Your task to perform on an android device: visit the assistant section in the google photos Image 0: 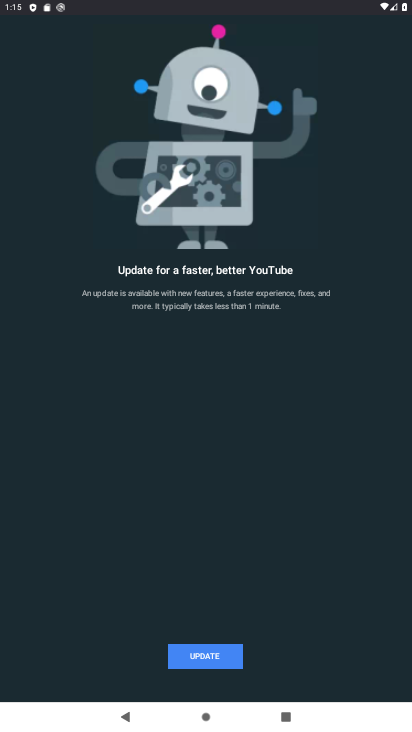
Step 0: press home button
Your task to perform on an android device: visit the assistant section in the google photos Image 1: 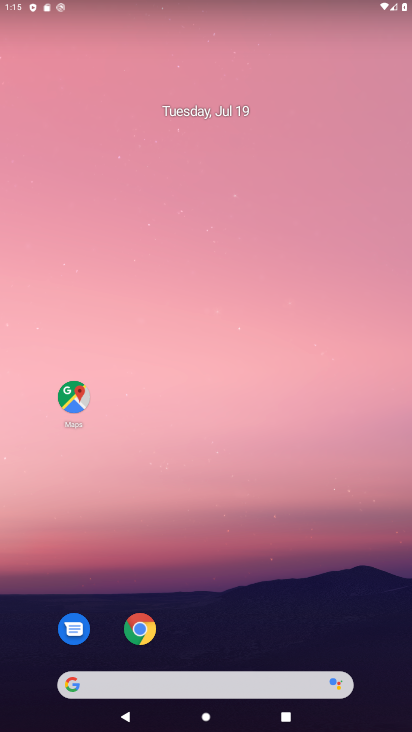
Step 1: drag from (227, 649) to (183, 0)
Your task to perform on an android device: visit the assistant section in the google photos Image 2: 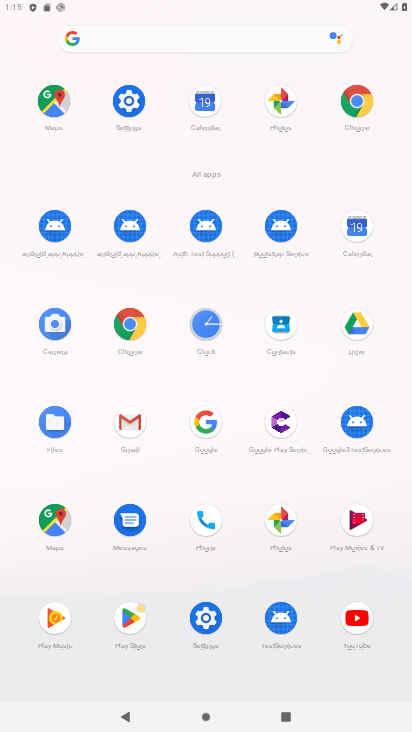
Step 2: click (276, 518)
Your task to perform on an android device: visit the assistant section in the google photos Image 3: 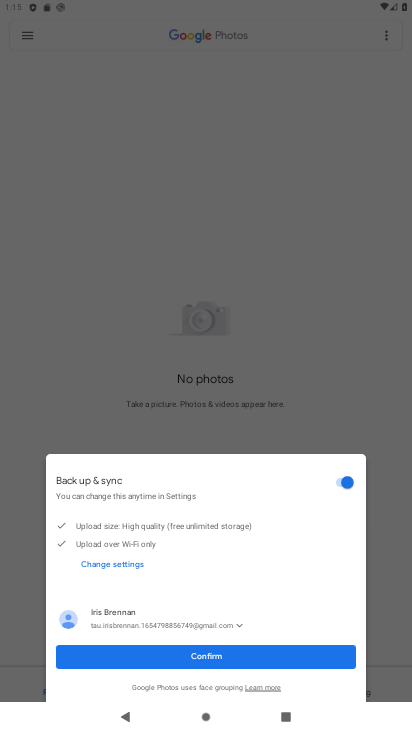
Step 3: click (225, 646)
Your task to perform on an android device: visit the assistant section in the google photos Image 4: 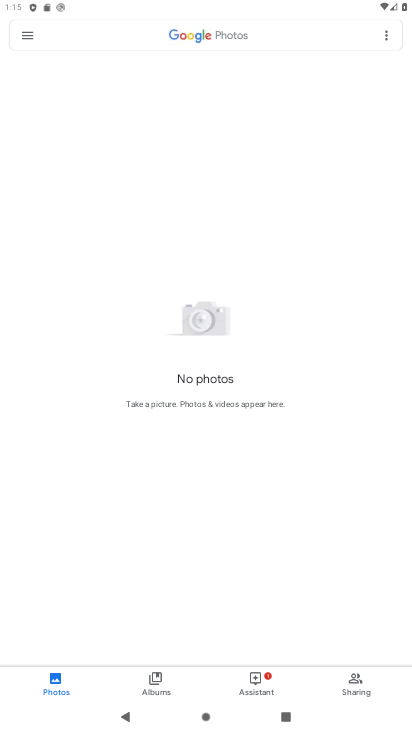
Step 4: click (263, 677)
Your task to perform on an android device: visit the assistant section in the google photos Image 5: 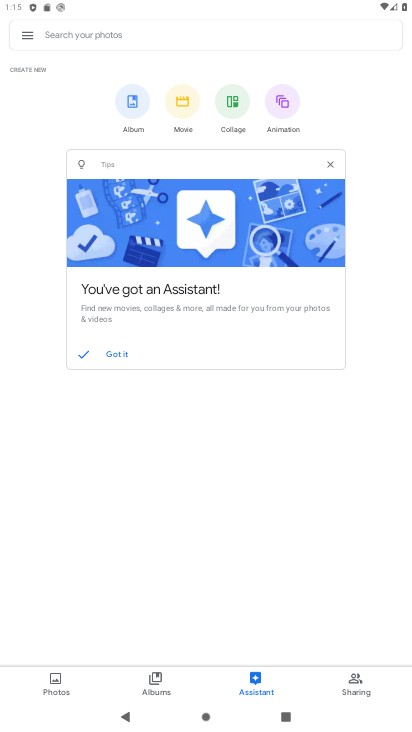
Step 5: task complete